Your task to perform on an android device: uninstall "Speedtest by Ookla" Image 0: 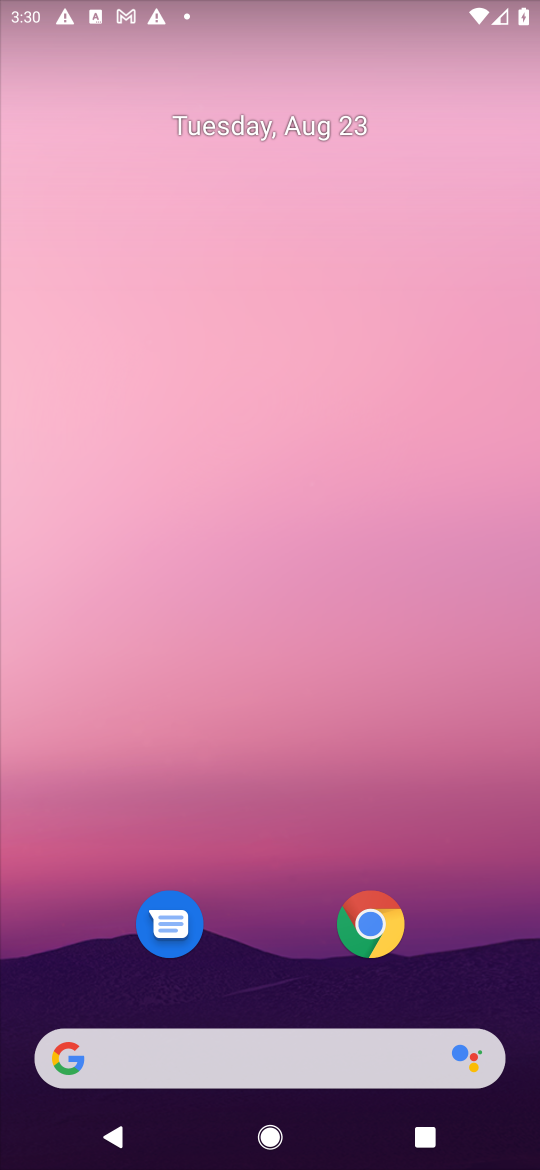
Step 0: press home button
Your task to perform on an android device: uninstall "Speedtest by Ookla" Image 1: 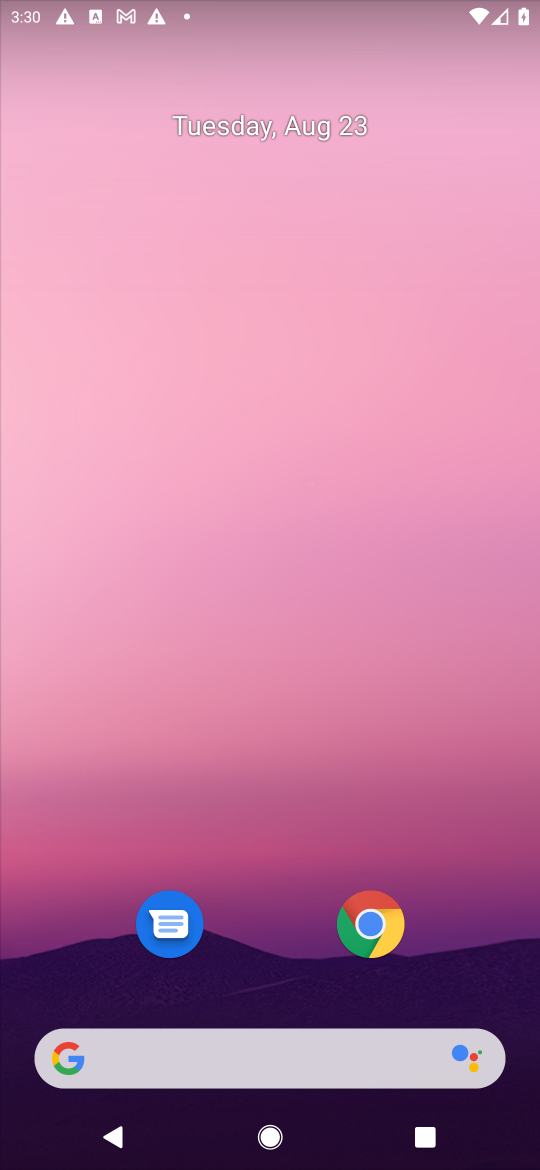
Step 1: drag from (479, 955) to (431, 169)
Your task to perform on an android device: uninstall "Speedtest by Ookla" Image 2: 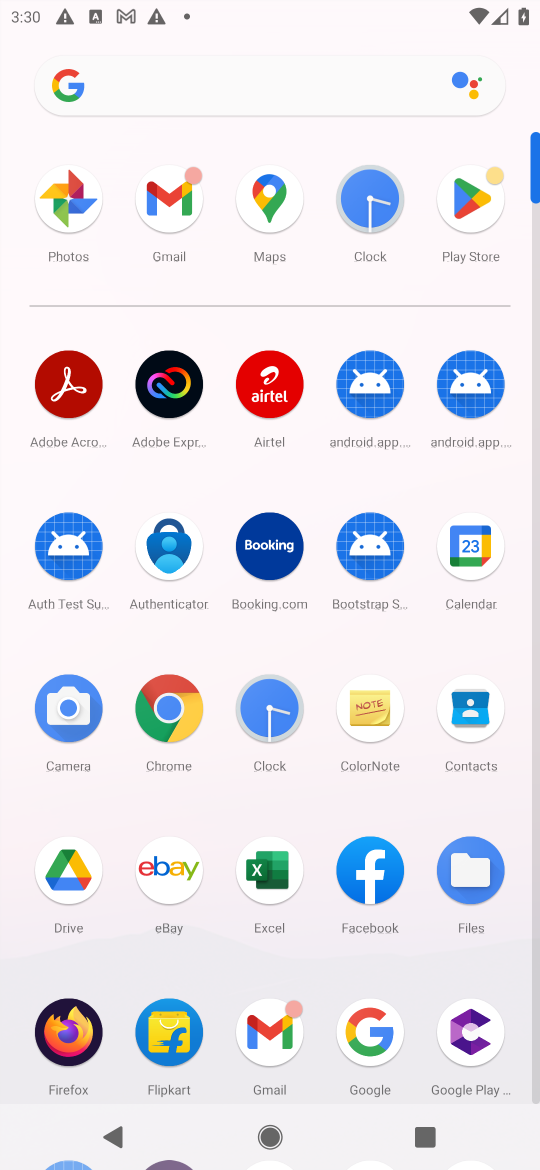
Step 2: click (467, 196)
Your task to perform on an android device: uninstall "Speedtest by Ookla" Image 3: 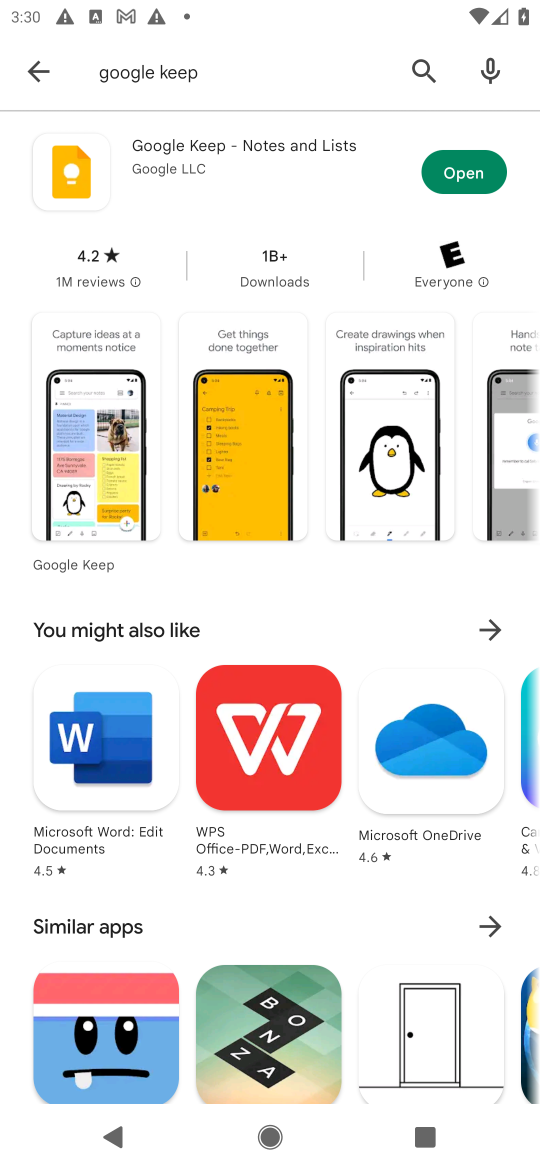
Step 3: press back button
Your task to perform on an android device: uninstall "Speedtest by Ookla" Image 4: 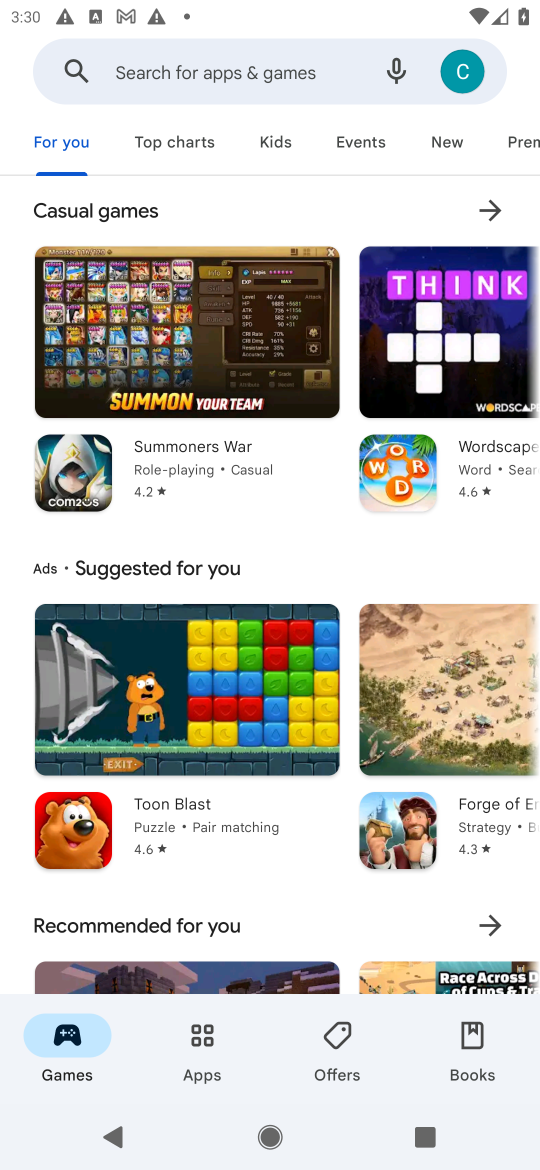
Step 4: click (246, 71)
Your task to perform on an android device: uninstall "Speedtest by Ookla" Image 5: 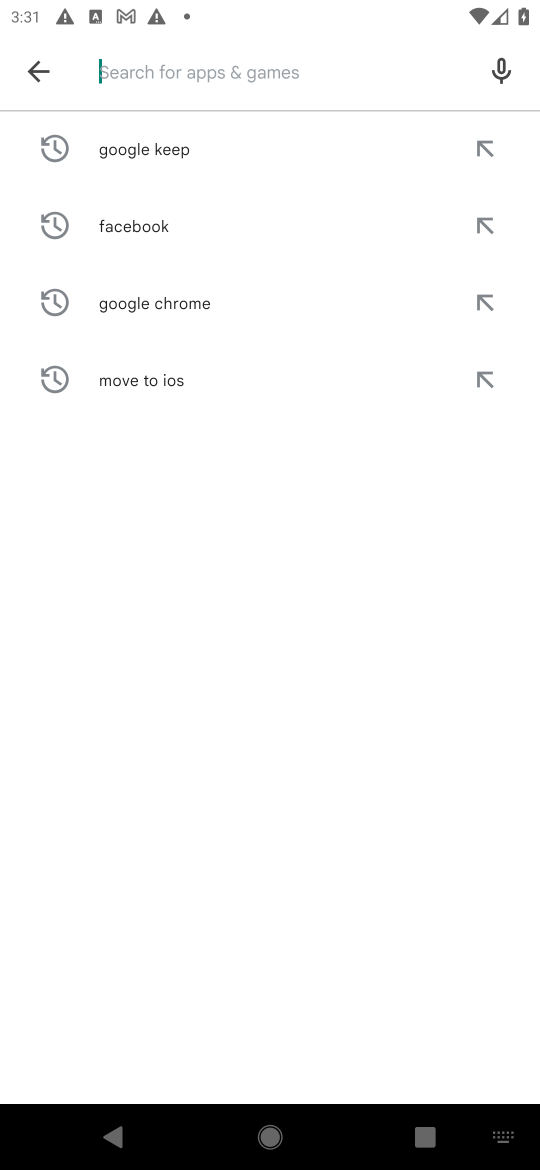
Step 5: type "Speedtest by Ookla"
Your task to perform on an android device: uninstall "Speedtest by Ookla" Image 6: 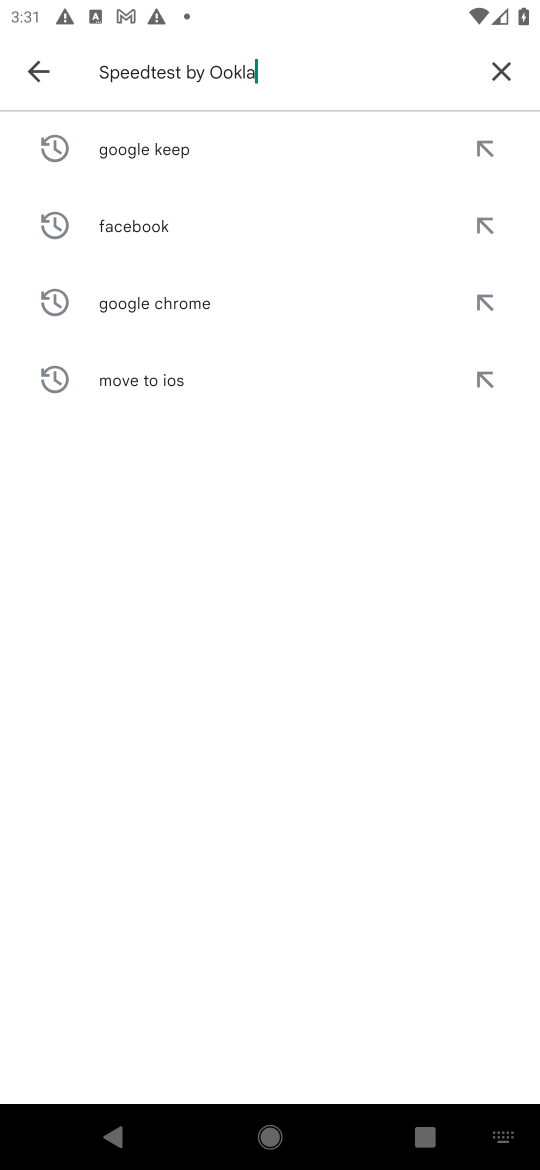
Step 6: press enter
Your task to perform on an android device: uninstall "Speedtest by Ookla" Image 7: 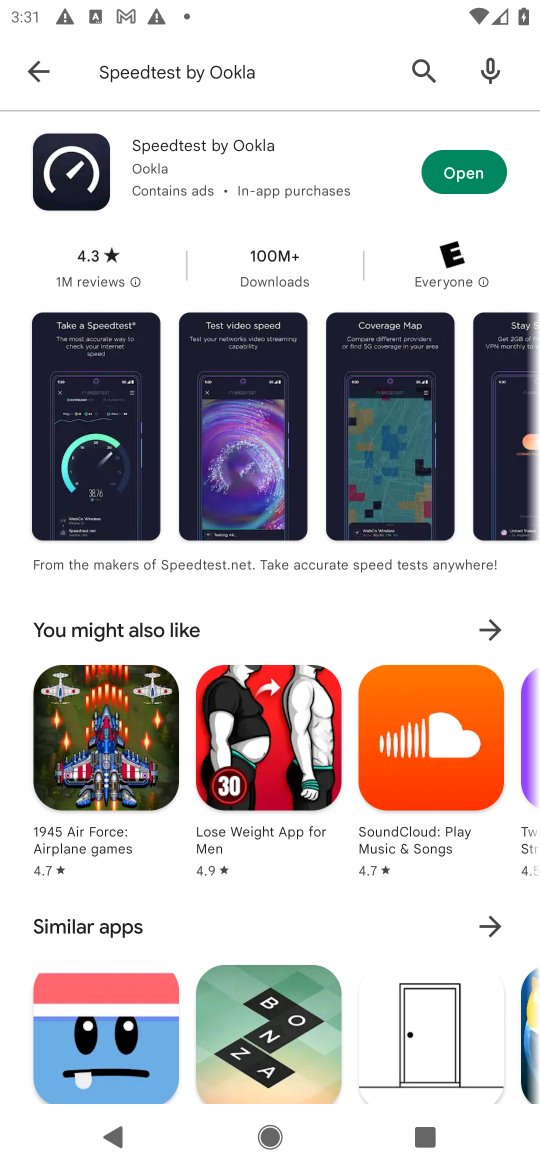
Step 7: task complete